Your task to perform on an android device: turn off location Image 0: 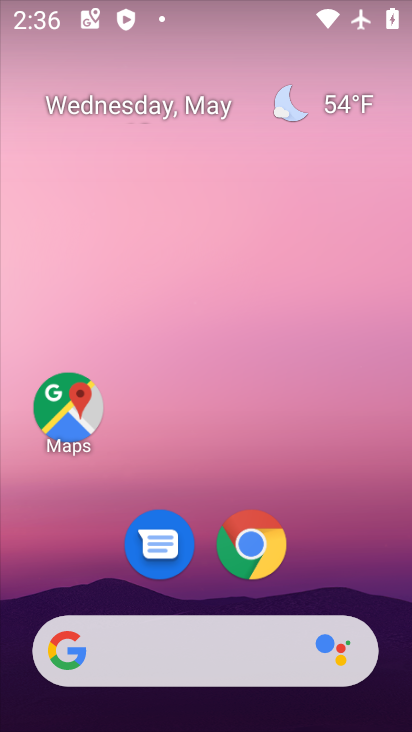
Step 0: drag from (365, 561) to (291, 123)
Your task to perform on an android device: turn off location Image 1: 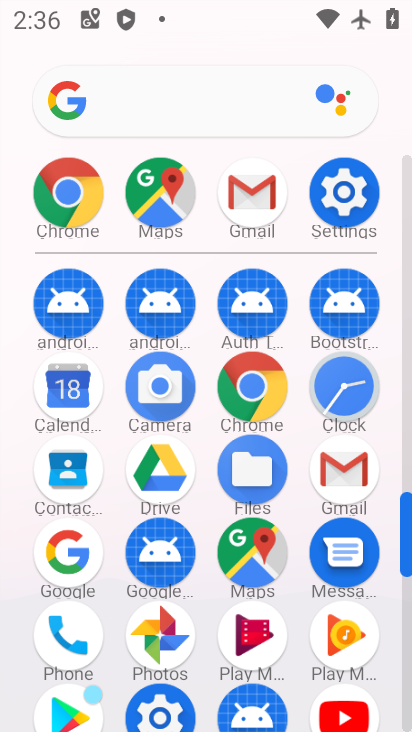
Step 1: click (351, 207)
Your task to perform on an android device: turn off location Image 2: 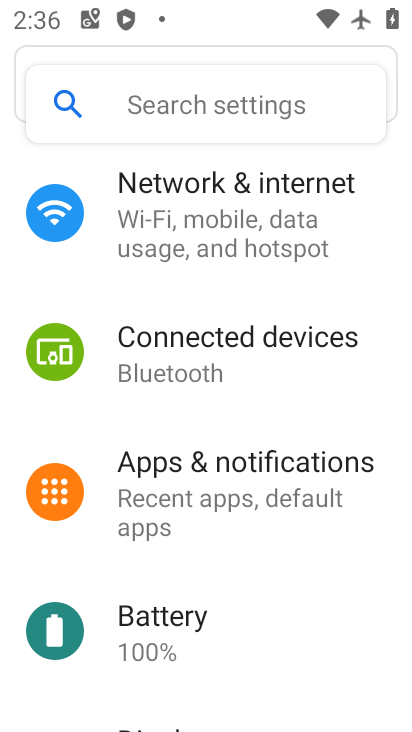
Step 2: click (351, 207)
Your task to perform on an android device: turn off location Image 3: 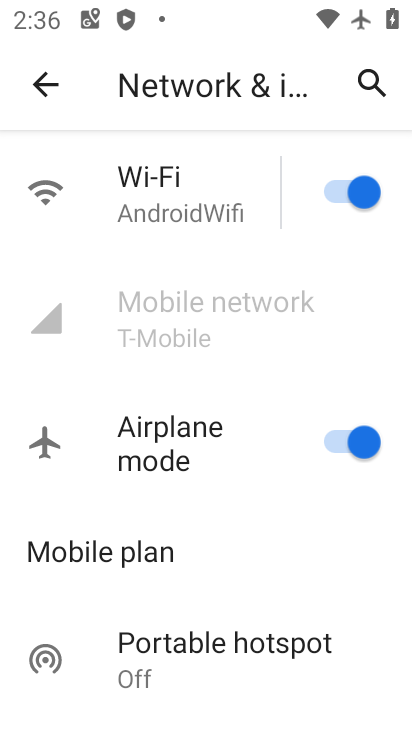
Step 3: click (321, 472)
Your task to perform on an android device: turn off location Image 4: 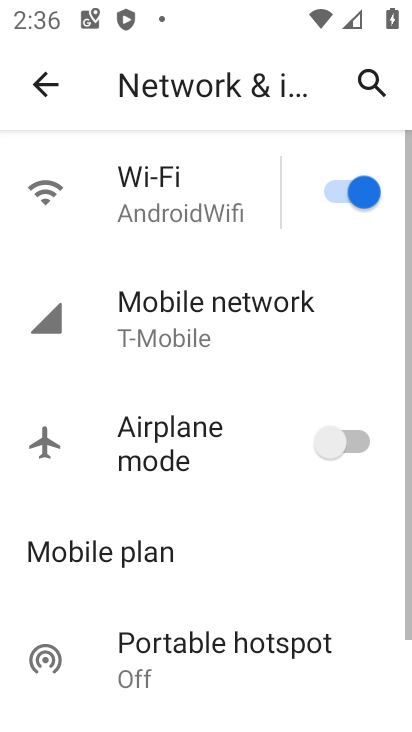
Step 4: drag from (270, 574) to (186, 299)
Your task to perform on an android device: turn off location Image 5: 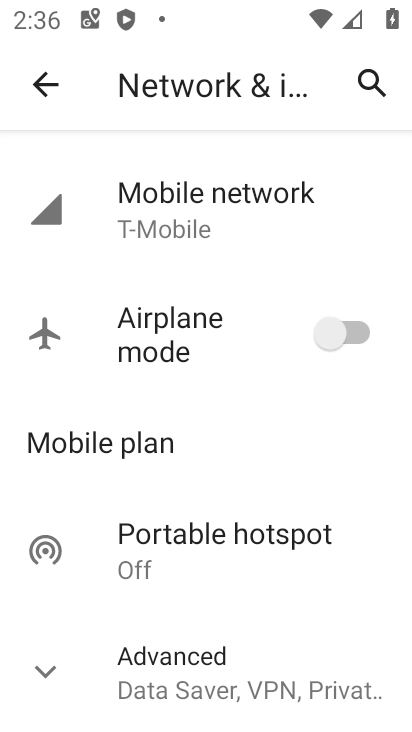
Step 5: drag from (274, 612) to (152, 294)
Your task to perform on an android device: turn off location Image 6: 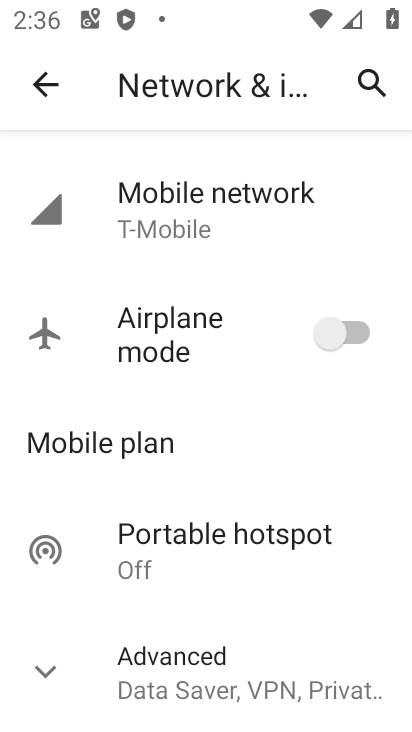
Step 6: click (186, 632)
Your task to perform on an android device: turn off location Image 7: 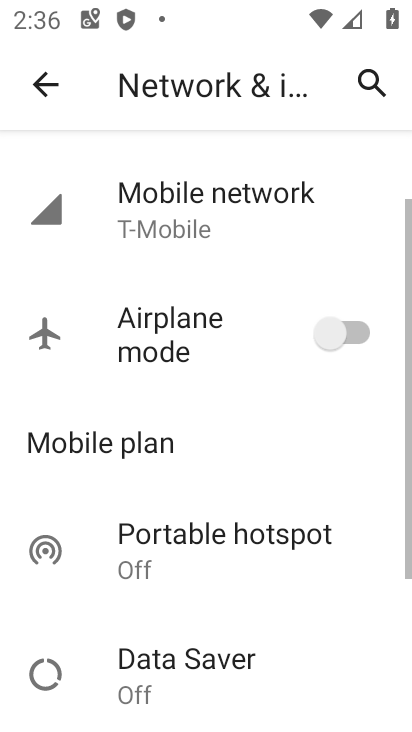
Step 7: drag from (186, 632) to (48, 278)
Your task to perform on an android device: turn off location Image 8: 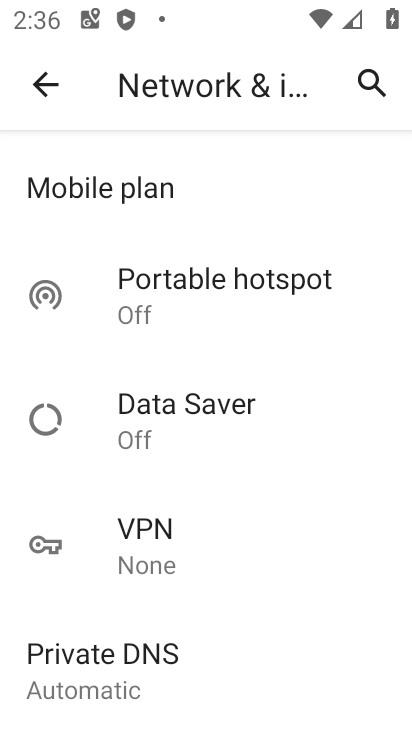
Step 8: drag from (207, 585) to (164, 193)
Your task to perform on an android device: turn off location Image 9: 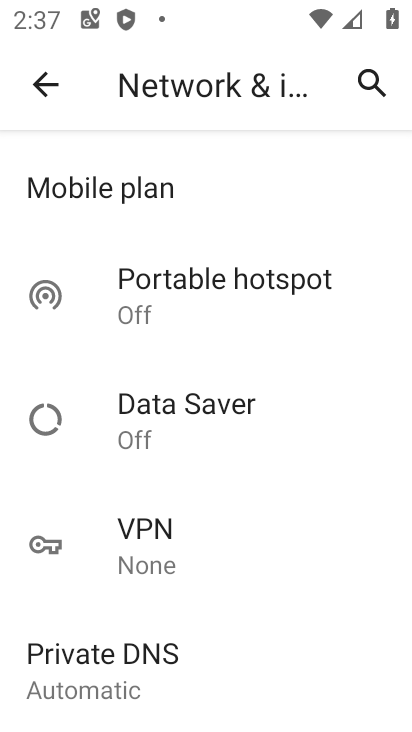
Step 9: click (60, 103)
Your task to perform on an android device: turn off location Image 10: 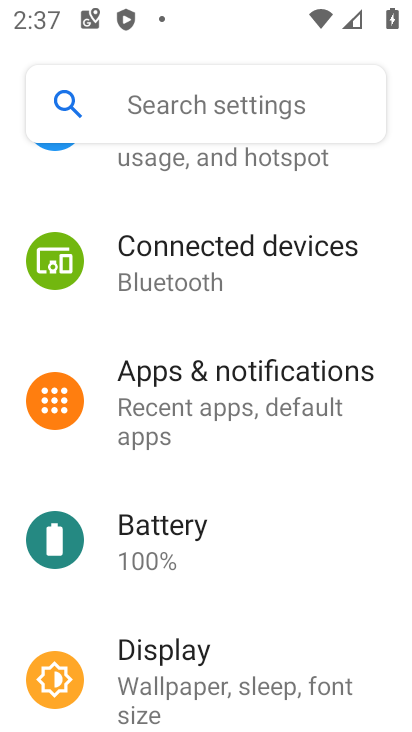
Step 10: drag from (186, 562) to (160, 308)
Your task to perform on an android device: turn off location Image 11: 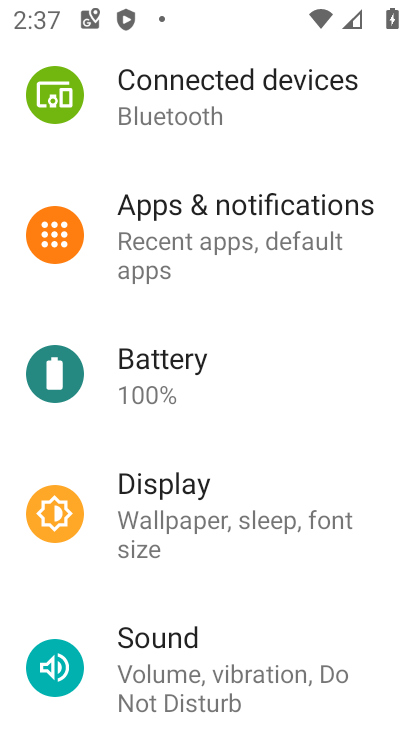
Step 11: drag from (296, 577) to (197, 240)
Your task to perform on an android device: turn off location Image 12: 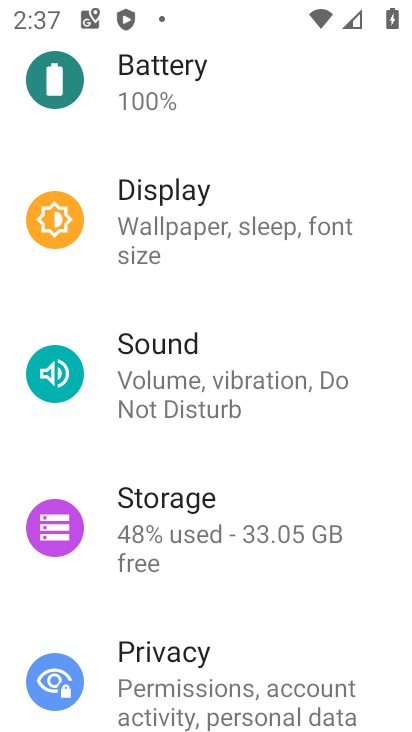
Step 12: drag from (322, 562) to (250, 283)
Your task to perform on an android device: turn off location Image 13: 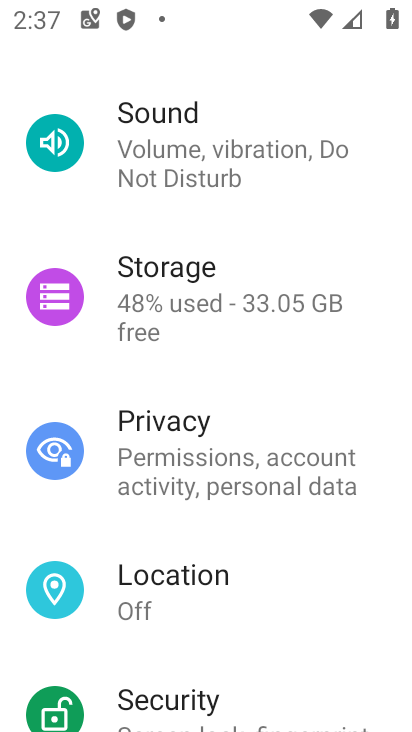
Step 13: click (262, 571)
Your task to perform on an android device: turn off location Image 14: 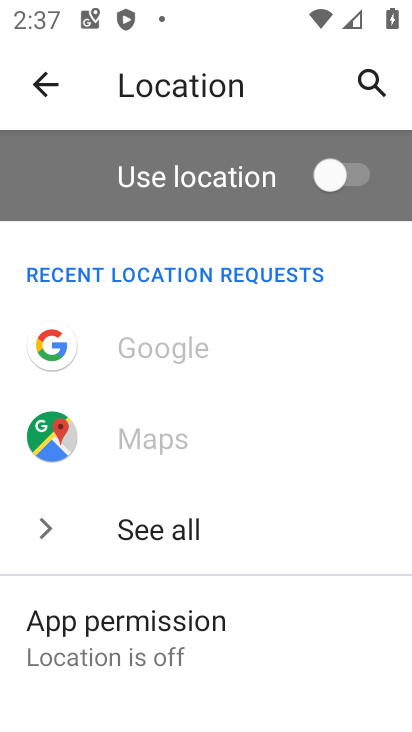
Step 14: task complete